Your task to perform on an android device: Open the calendar app, open the side menu, and click the "Day" option Image 0: 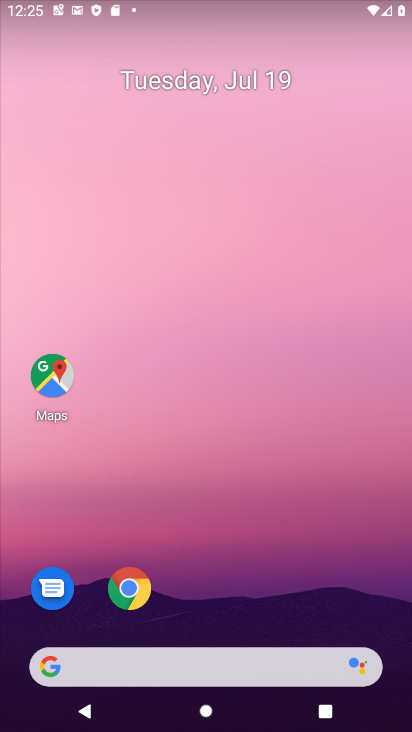
Step 0: drag from (354, 616) to (336, 48)
Your task to perform on an android device: Open the calendar app, open the side menu, and click the "Day" option Image 1: 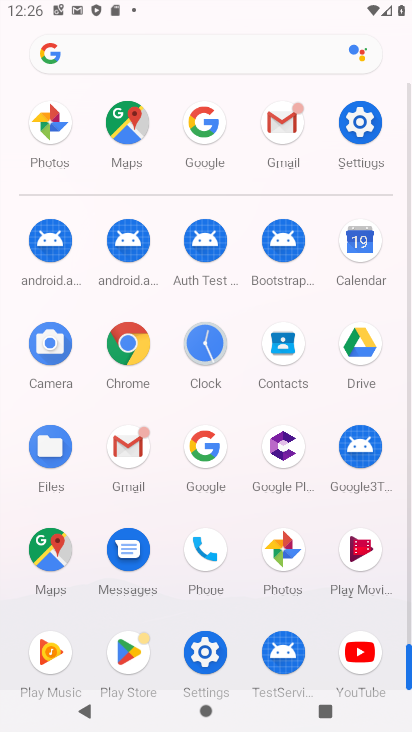
Step 1: click (351, 265)
Your task to perform on an android device: Open the calendar app, open the side menu, and click the "Day" option Image 2: 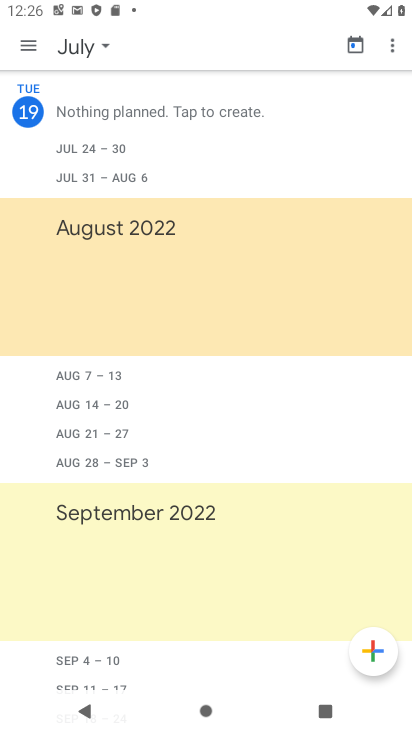
Step 2: click (39, 49)
Your task to perform on an android device: Open the calendar app, open the side menu, and click the "Day" option Image 3: 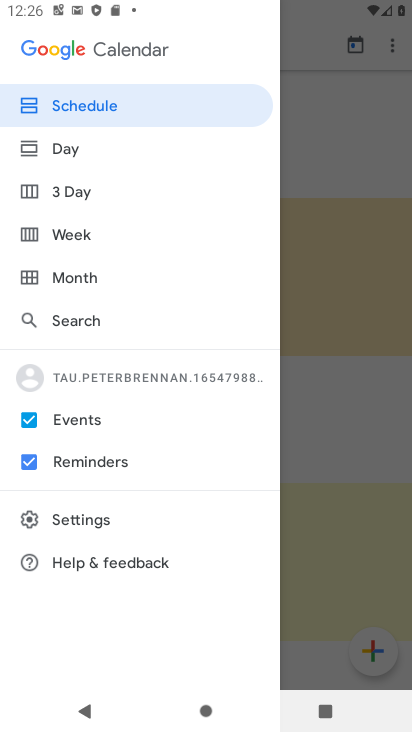
Step 3: click (80, 141)
Your task to perform on an android device: Open the calendar app, open the side menu, and click the "Day" option Image 4: 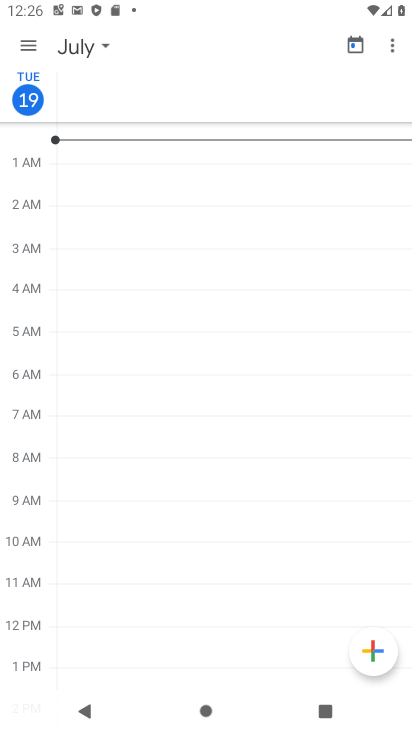
Step 4: task complete